Your task to perform on an android device: Open maps Image 0: 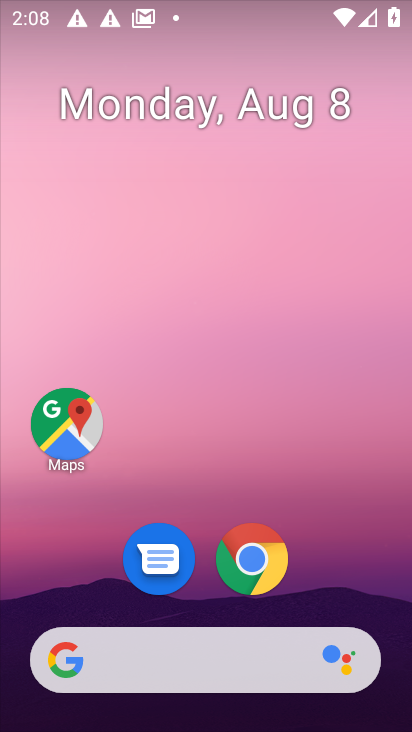
Step 0: click (67, 428)
Your task to perform on an android device: Open maps Image 1: 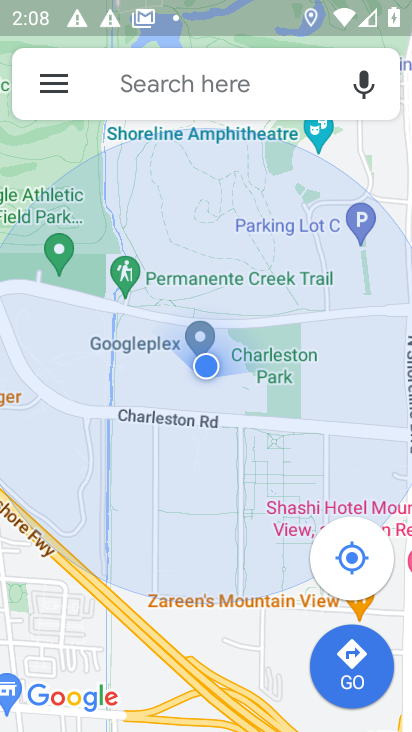
Step 1: task complete